Your task to perform on an android device: change the clock style Image 0: 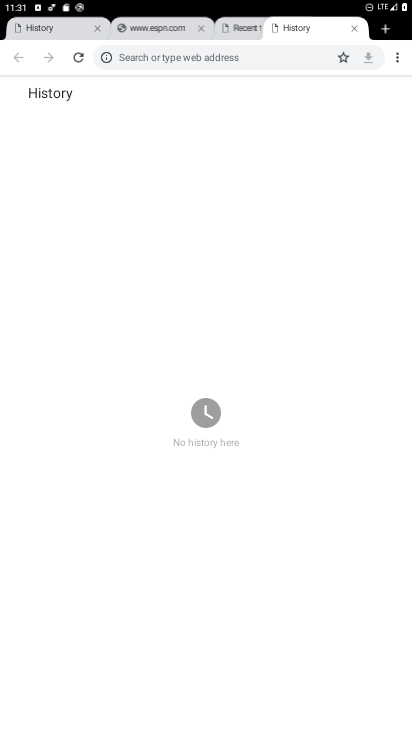
Step 0: press home button
Your task to perform on an android device: change the clock style Image 1: 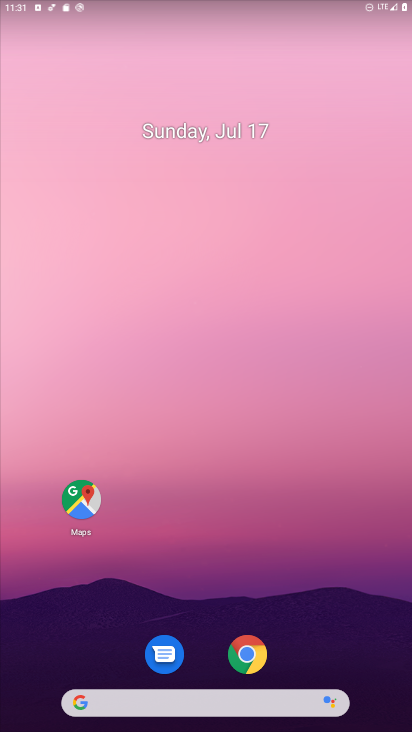
Step 1: drag from (187, 623) to (210, 163)
Your task to perform on an android device: change the clock style Image 2: 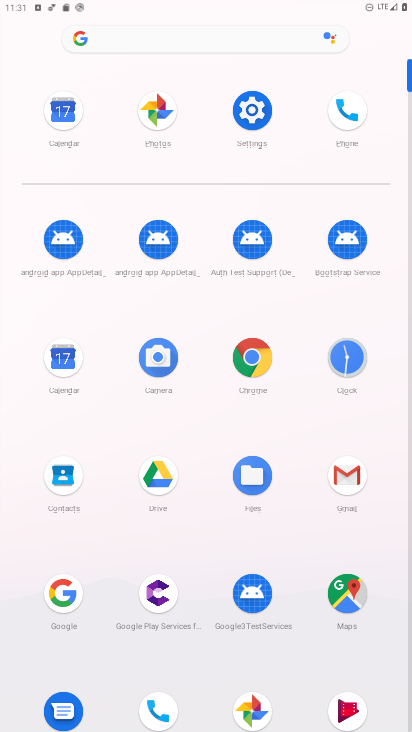
Step 2: click (340, 346)
Your task to perform on an android device: change the clock style Image 3: 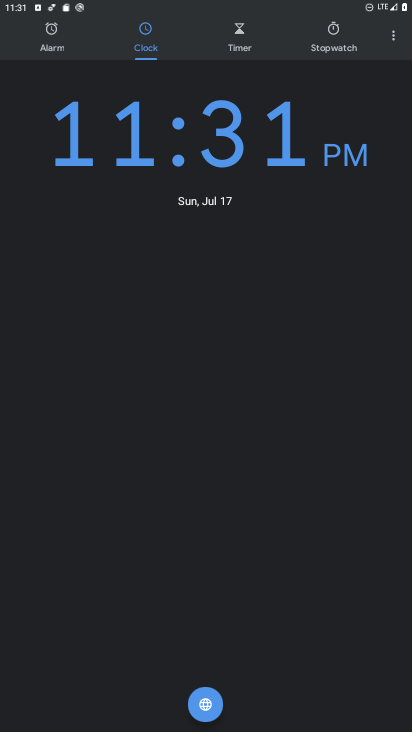
Step 3: click (383, 31)
Your task to perform on an android device: change the clock style Image 4: 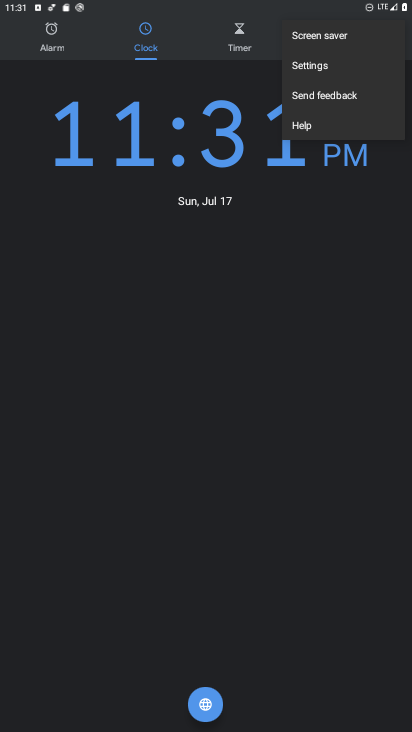
Step 4: click (332, 64)
Your task to perform on an android device: change the clock style Image 5: 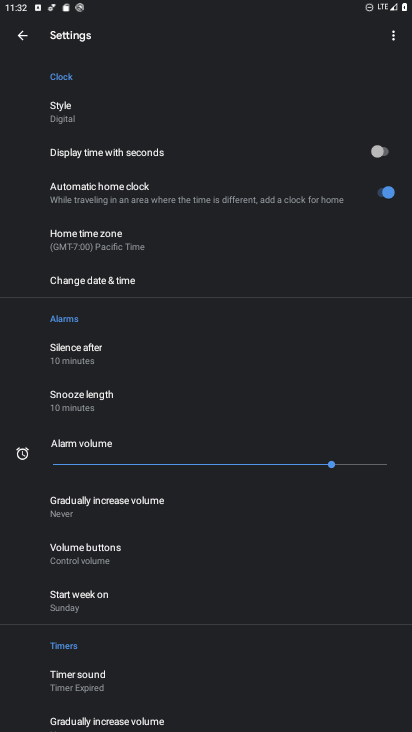
Step 5: click (102, 107)
Your task to perform on an android device: change the clock style Image 6: 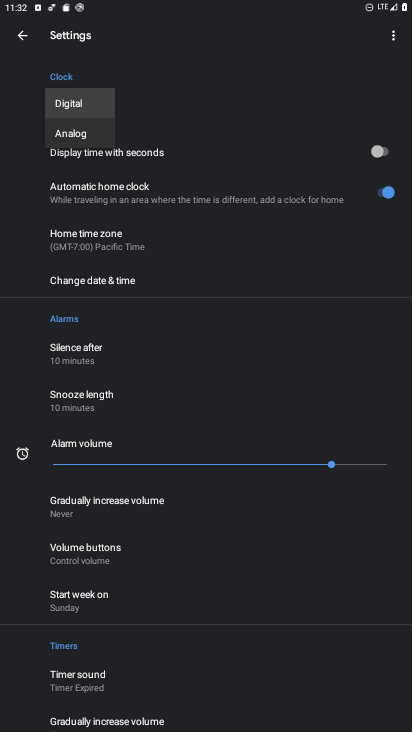
Step 6: click (94, 135)
Your task to perform on an android device: change the clock style Image 7: 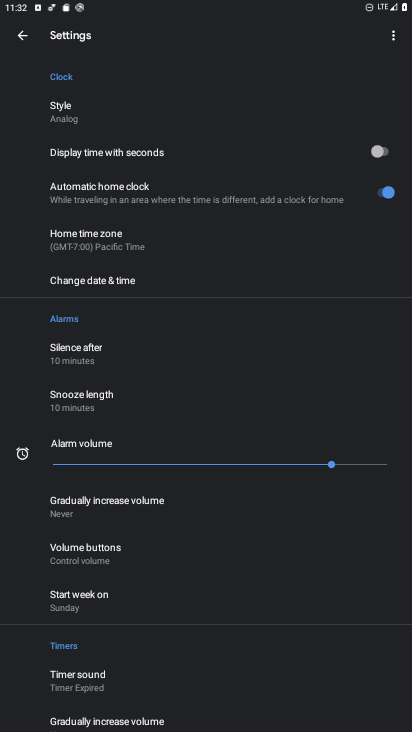
Step 7: task complete